Your task to perform on an android device: Open internet settings Image 0: 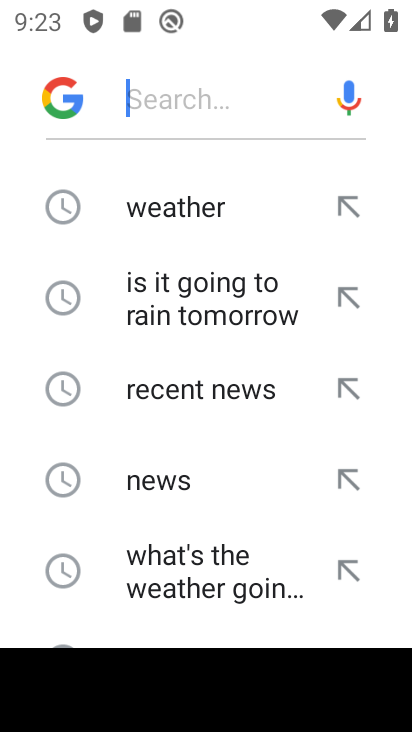
Step 0: press home button
Your task to perform on an android device: Open internet settings Image 1: 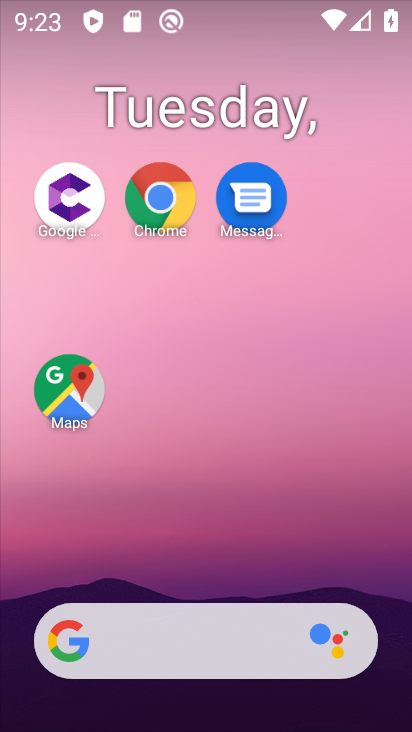
Step 1: drag from (203, 591) to (353, 544)
Your task to perform on an android device: Open internet settings Image 2: 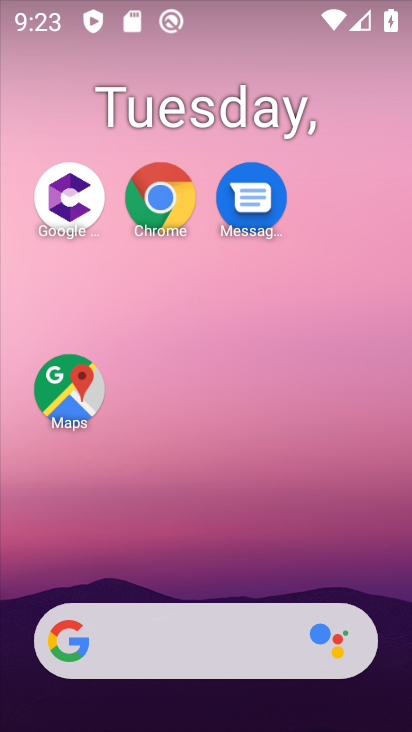
Step 2: drag from (219, 578) to (349, 723)
Your task to perform on an android device: Open internet settings Image 3: 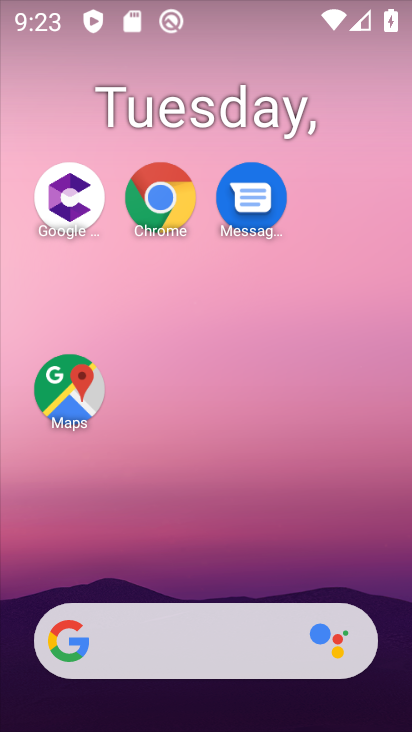
Step 3: drag from (250, 590) to (197, 56)
Your task to perform on an android device: Open internet settings Image 4: 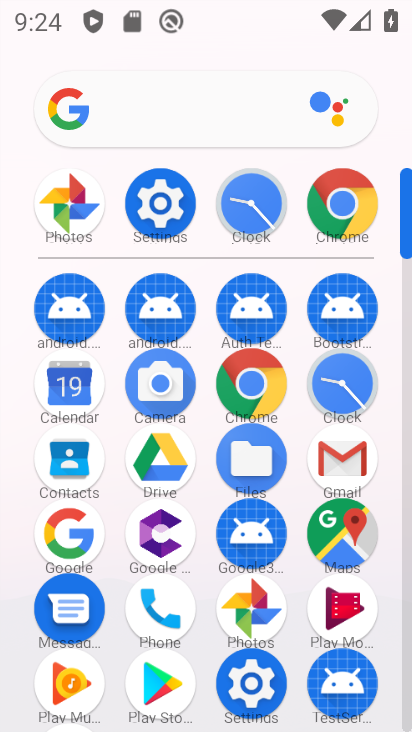
Step 4: click (174, 211)
Your task to perform on an android device: Open internet settings Image 5: 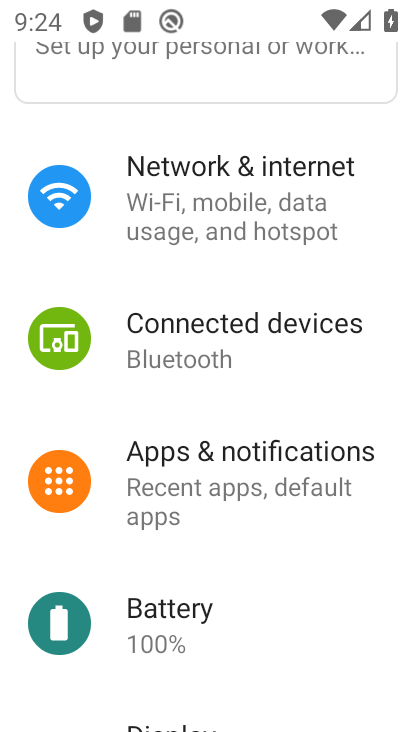
Step 5: click (189, 196)
Your task to perform on an android device: Open internet settings Image 6: 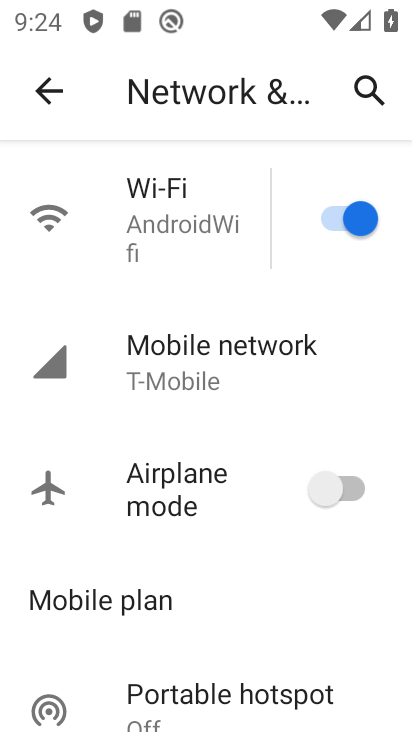
Step 6: click (243, 368)
Your task to perform on an android device: Open internet settings Image 7: 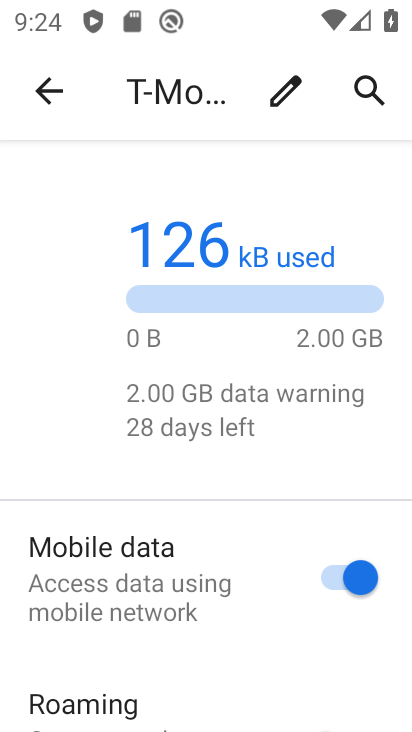
Step 7: task complete